Your task to perform on an android device: Open the phone app and click the voicemail tab. Image 0: 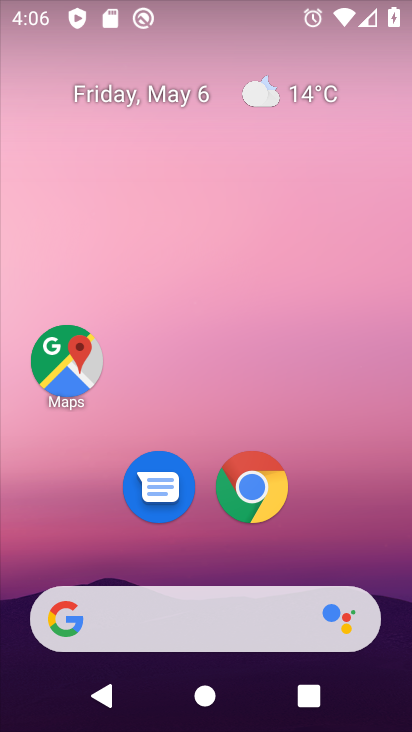
Step 0: drag from (206, 568) to (115, 89)
Your task to perform on an android device: Open the phone app and click the voicemail tab. Image 1: 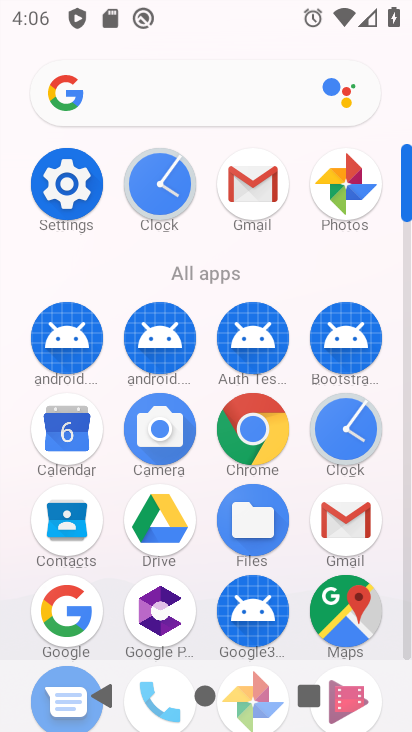
Step 1: drag from (108, 608) to (69, 159)
Your task to perform on an android device: Open the phone app and click the voicemail tab. Image 2: 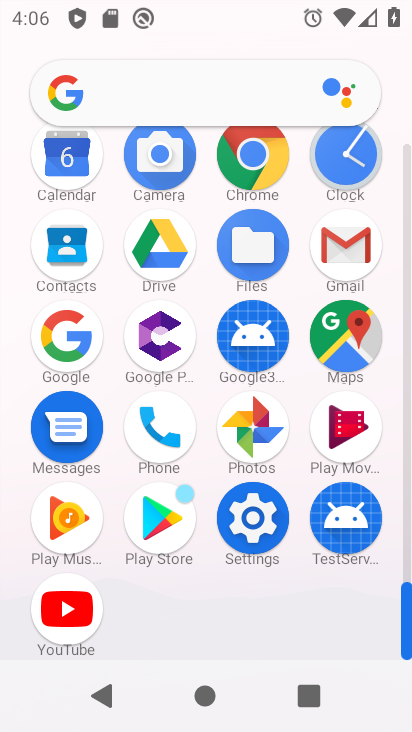
Step 2: click (159, 450)
Your task to perform on an android device: Open the phone app and click the voicemail tab. Image 3: 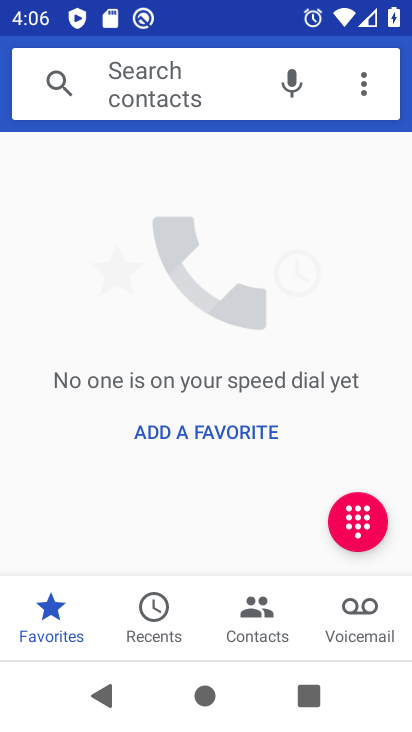
Step 3: click (326, 625)
Your task to perform on an android device: Open the phone app and click the voicemail tab. Image 4: 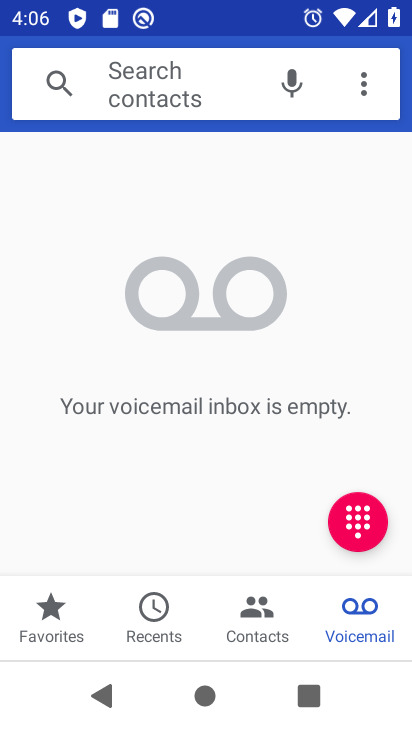
Step 4: task complete